Your task to perform on an android device: turn off translation in the chrome app Image 0: 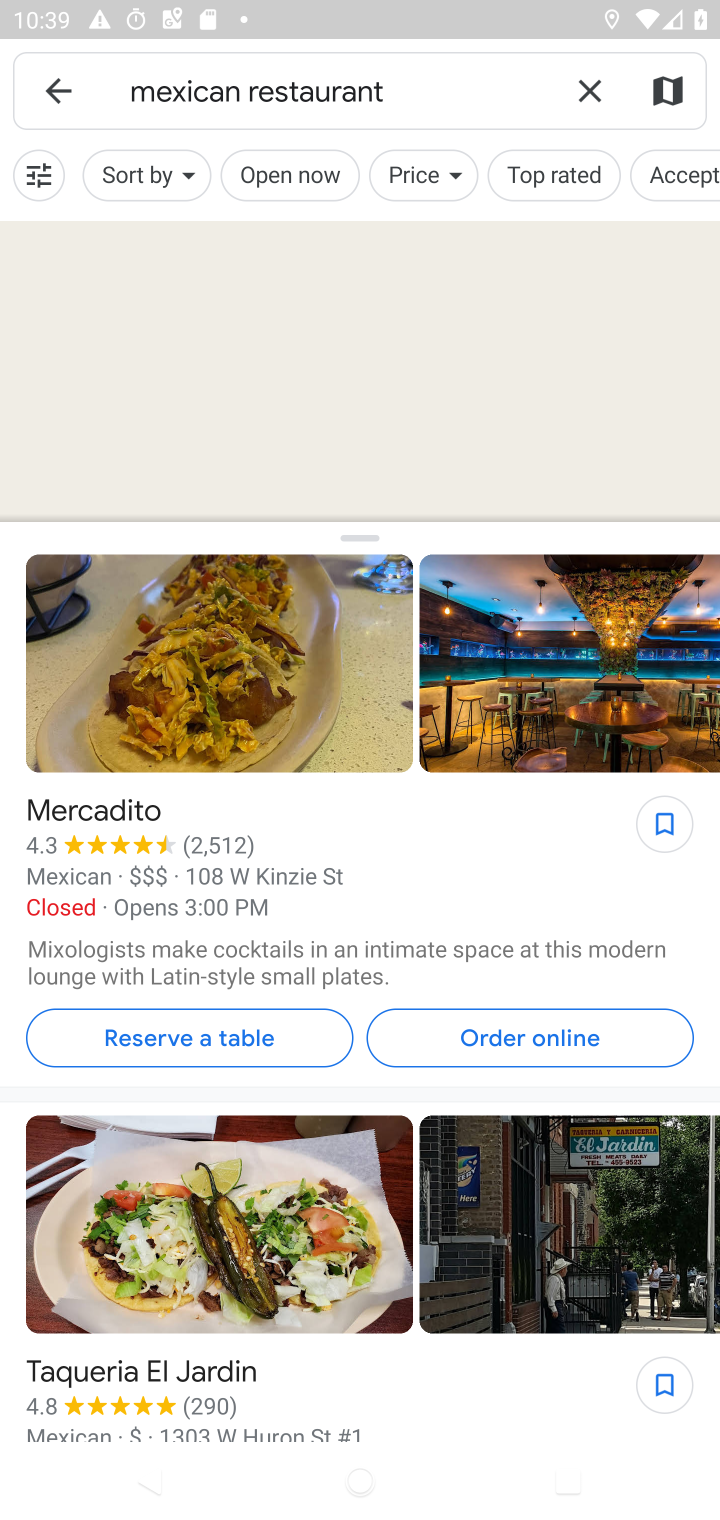
Step 0: press home button
Your task to perform on an android device: turn off translation in the chrome app Image 1: 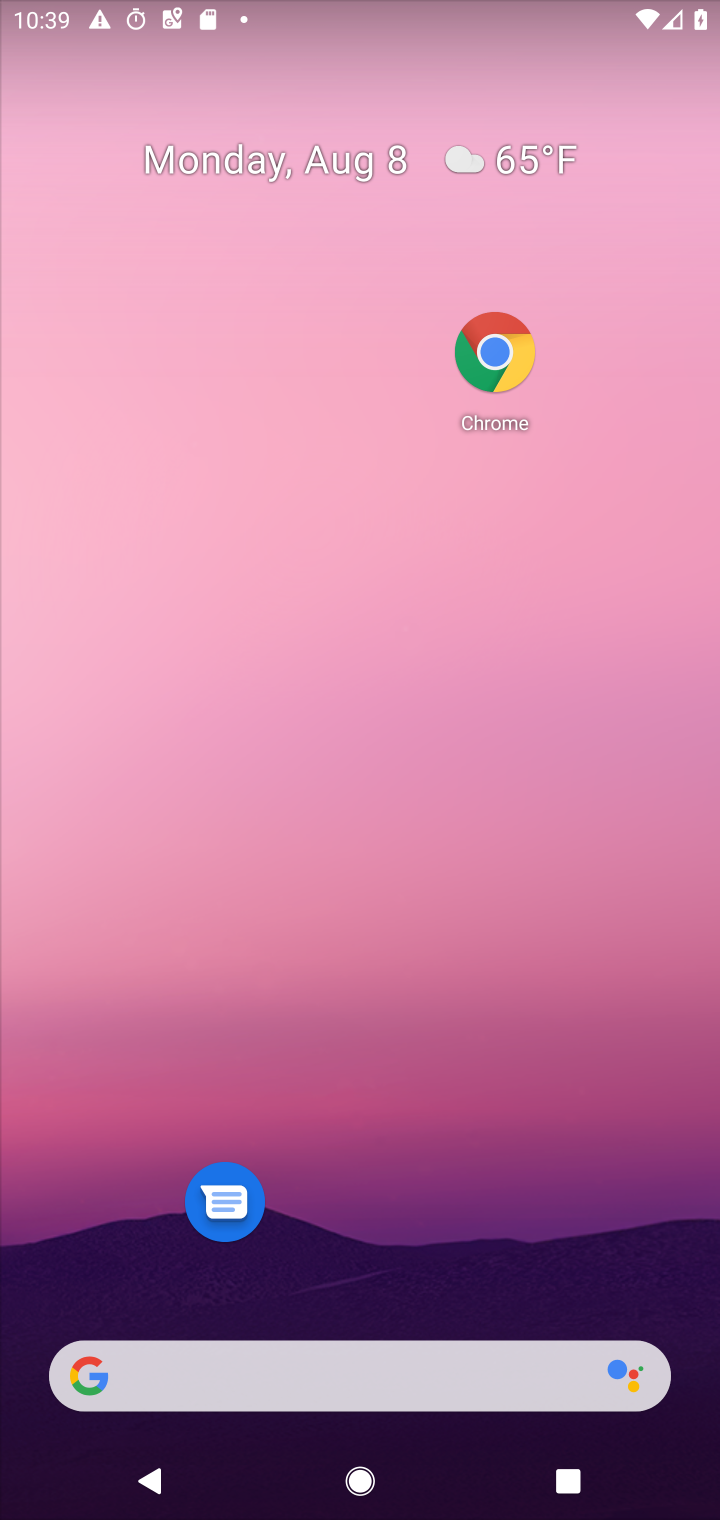
Step 1: drag from (234, 1329) to (280, 87)
Your task to perform on an android device: turn off translation in the chrome app Image 2: 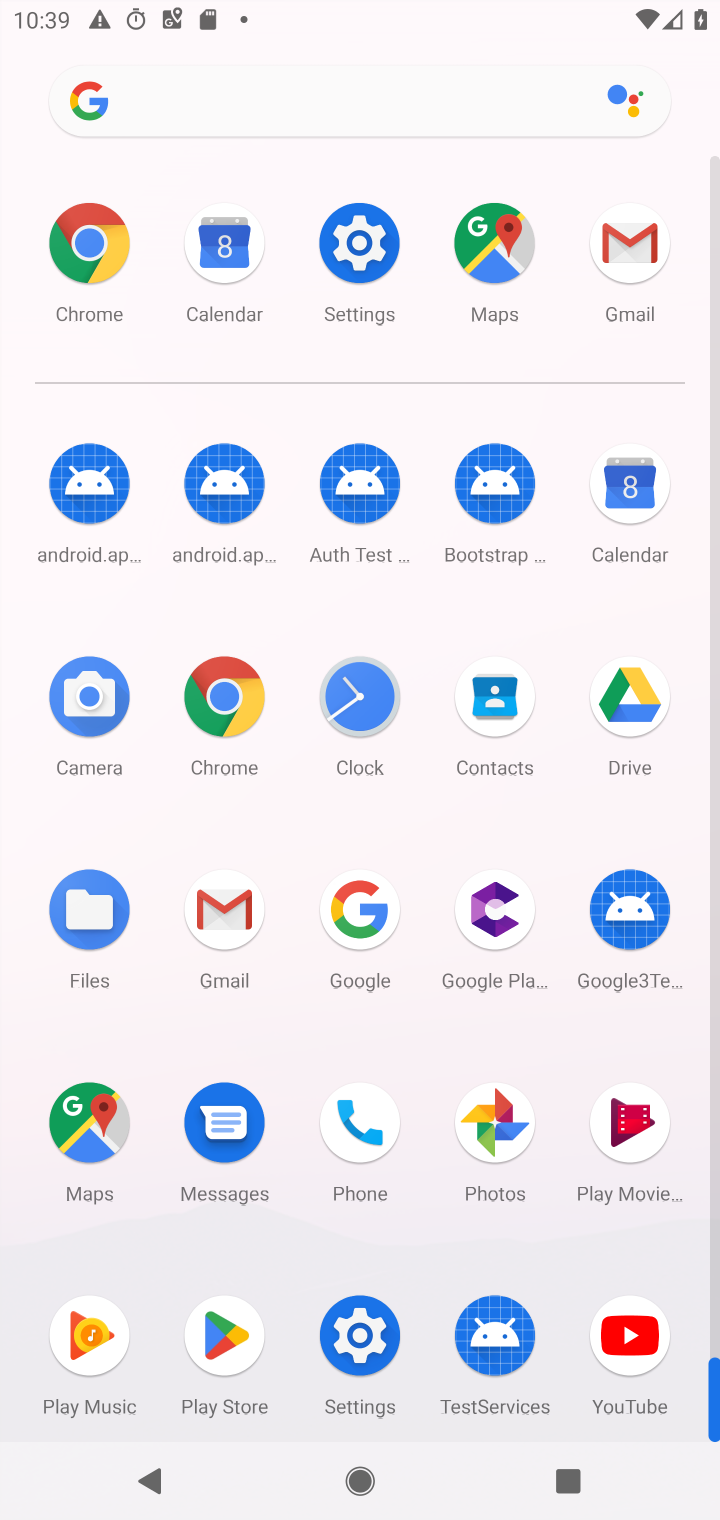
Step 2: click (87, 273)
Your task to perform on an android device: turn off translation in the chrome app Image 3: 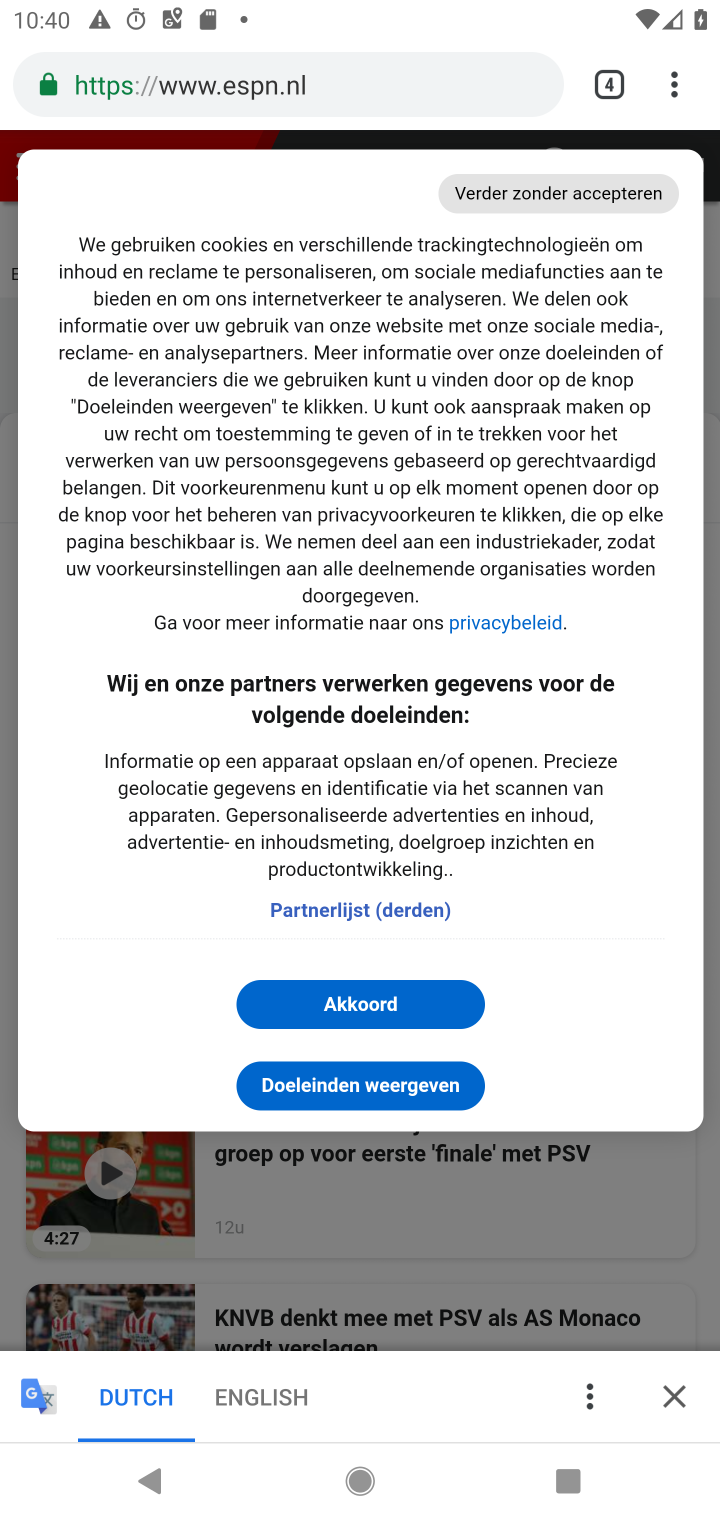
Step 3: click (677, 82)
Your task to perform on an android device: turn off translation in the chrome app Image 4: 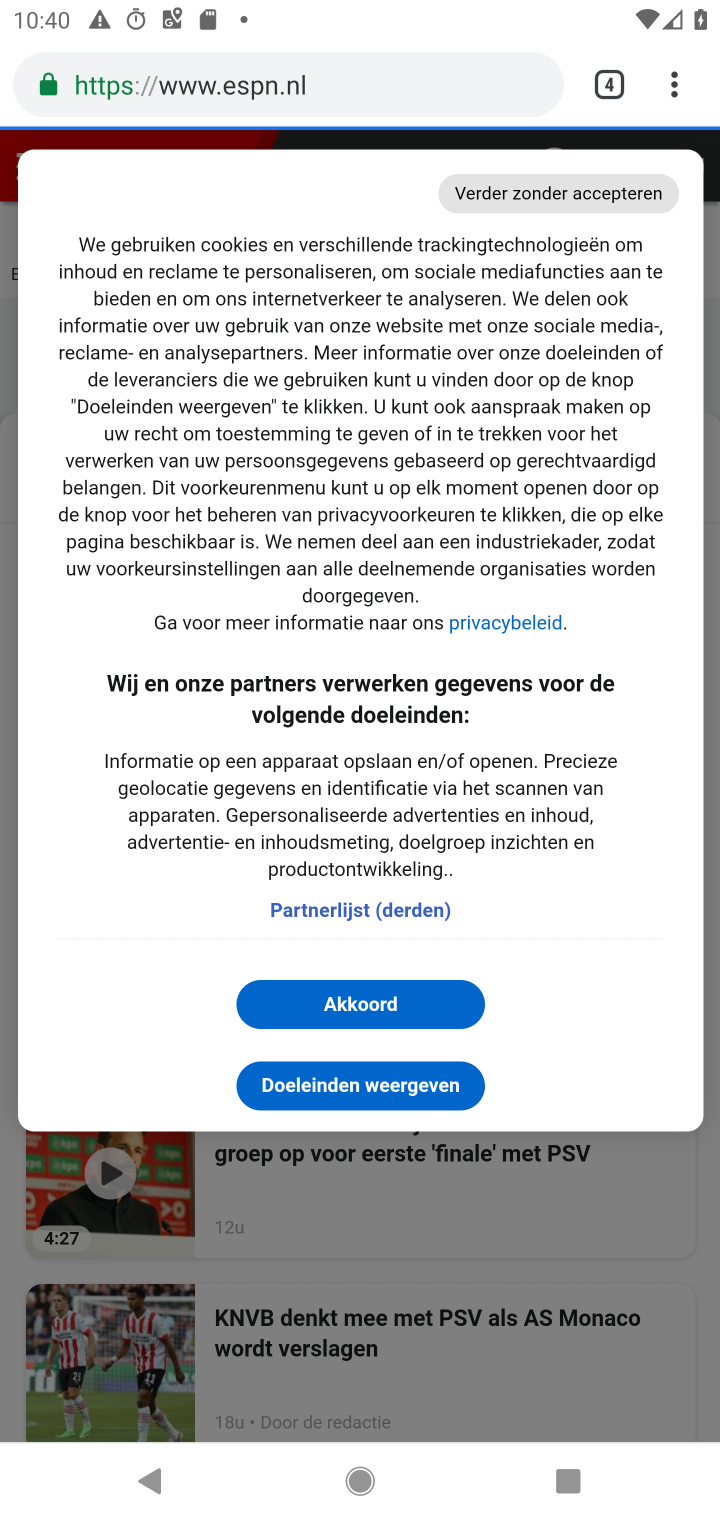
Step 4: click (677, 82)
Your task to perform on an android device: turn off translation in the chrome app Image 5: 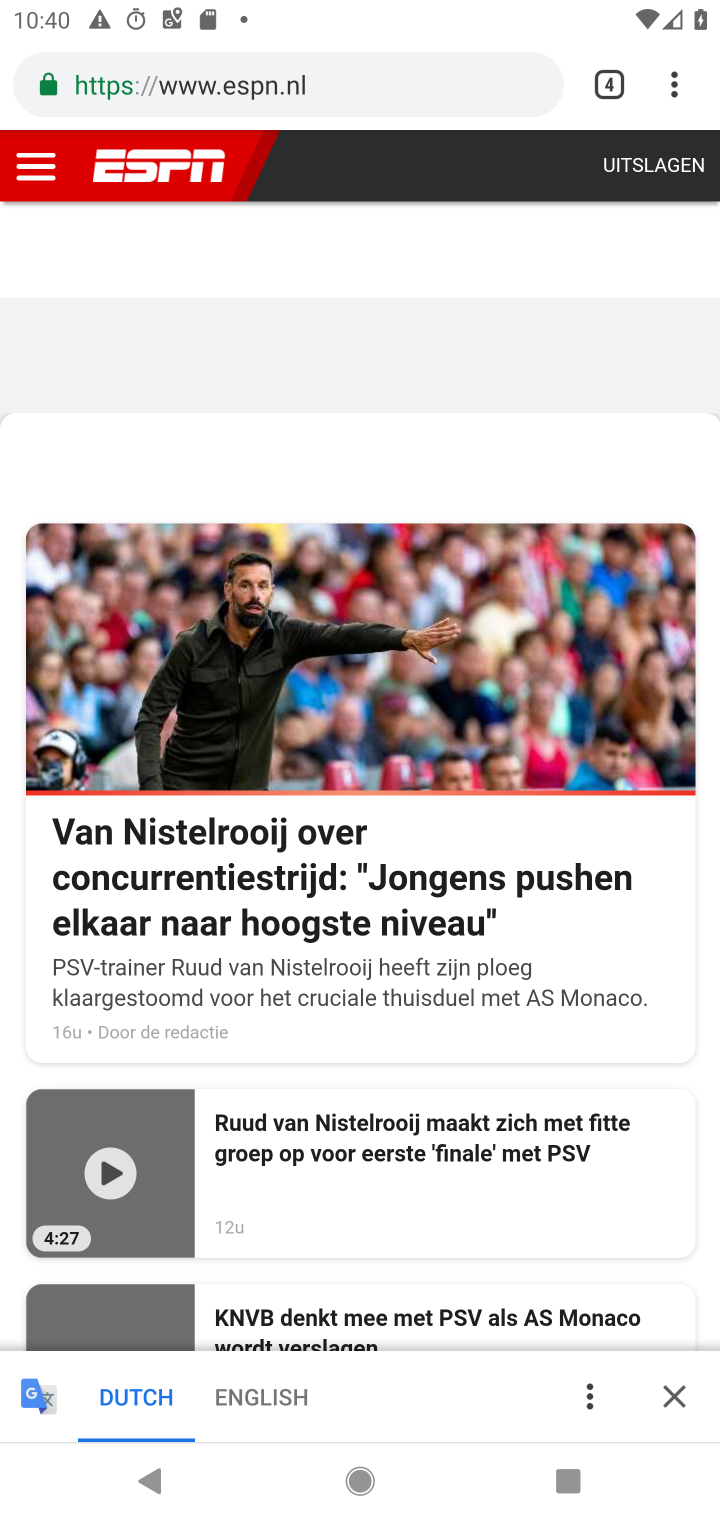
Step 5: click (677, 82)
Your task to perform on an android device: turn off translation in the chrome app Image 6: 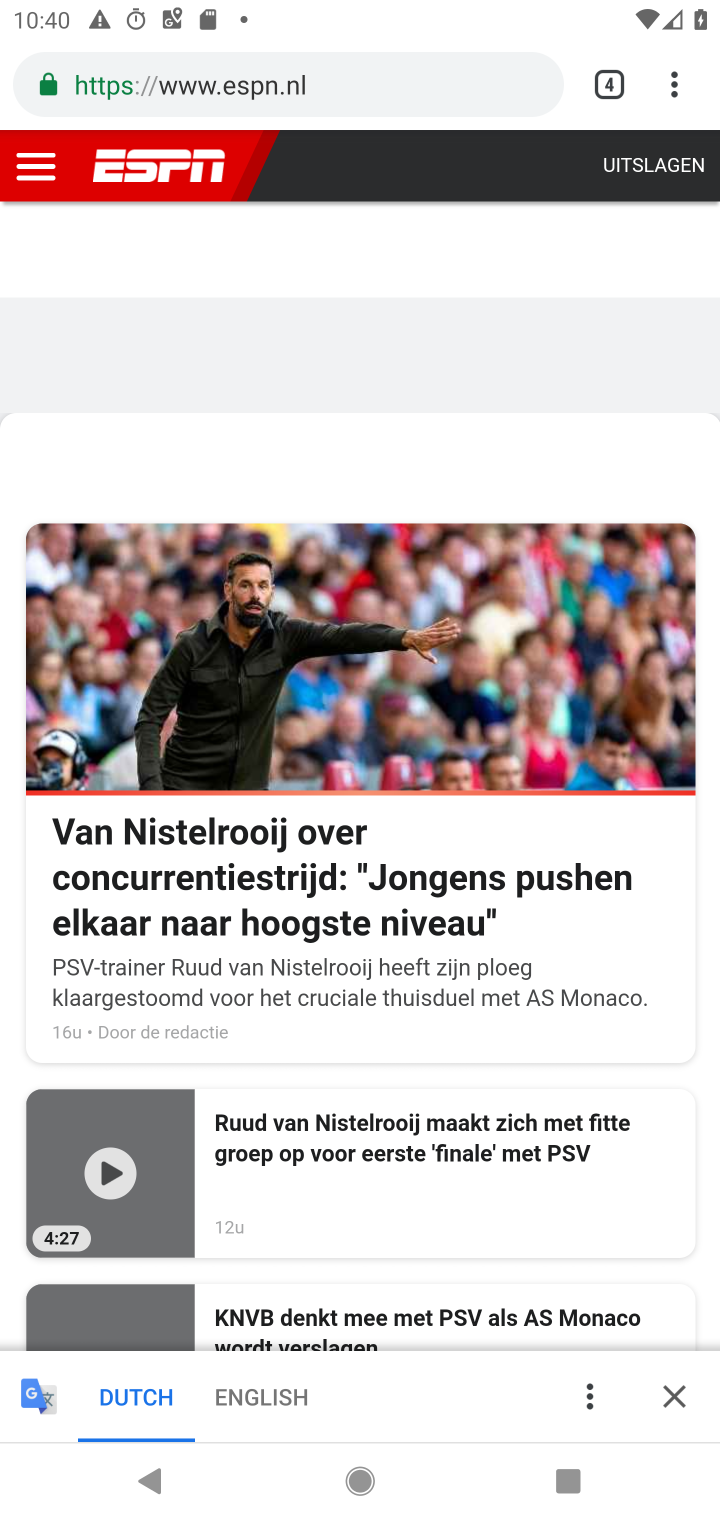
Step 6: click (677, 82)
Your task to perform on an android device: turn off translation in the chrome app Image 7: 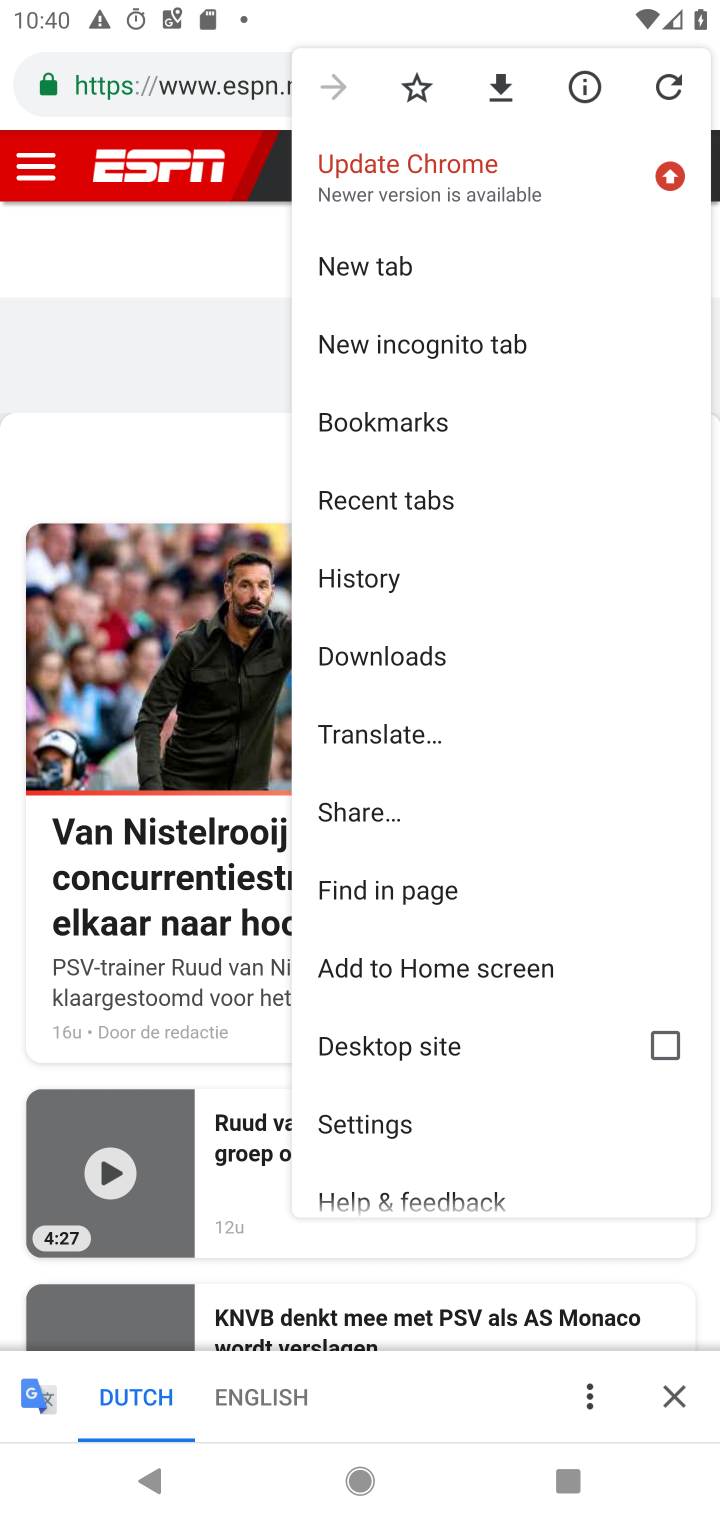
Step 7: click (403, 738)
Your task to perform on an android device: turn off translation in the chrome app Image 8: 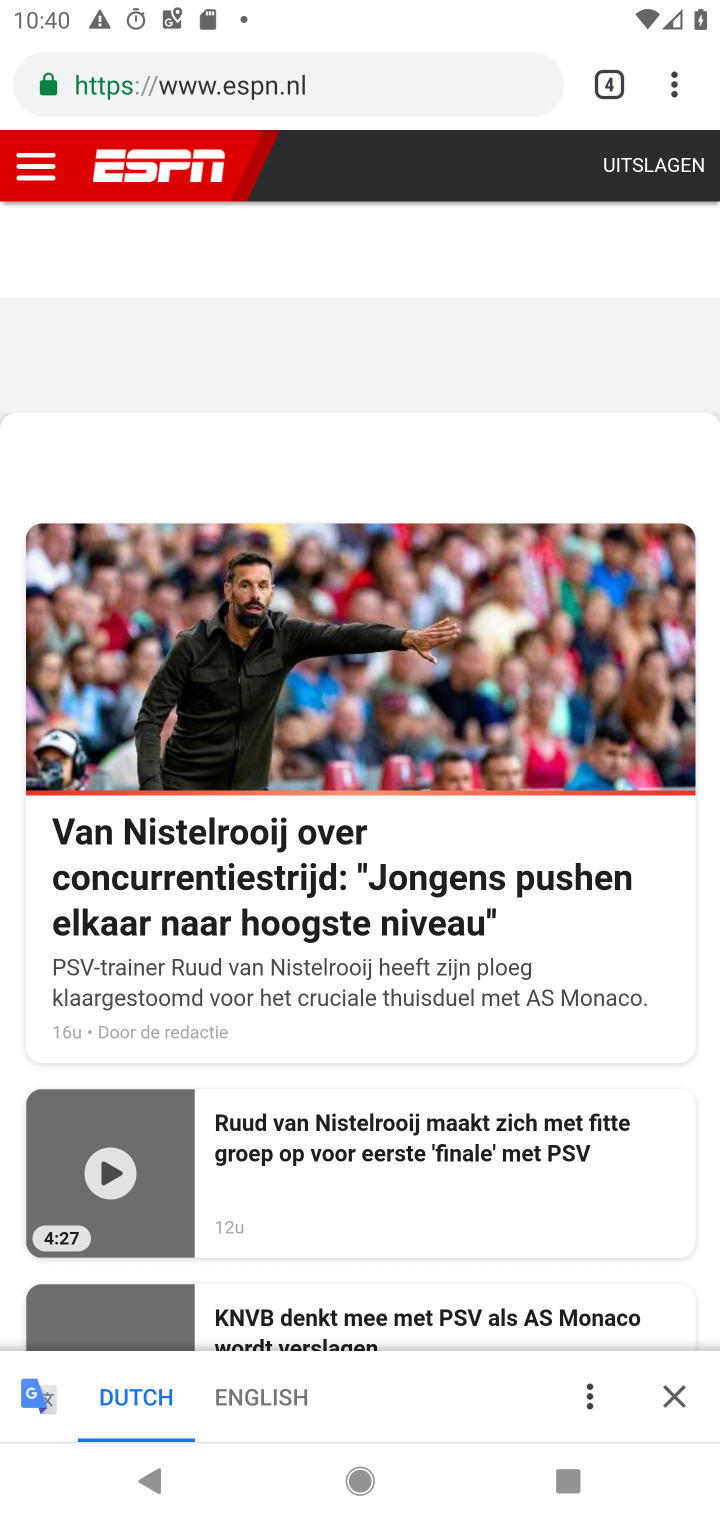
Step 8: click (597, 1396)
Your task to perform on an android device: turn off translation in the chrome app Image 9: 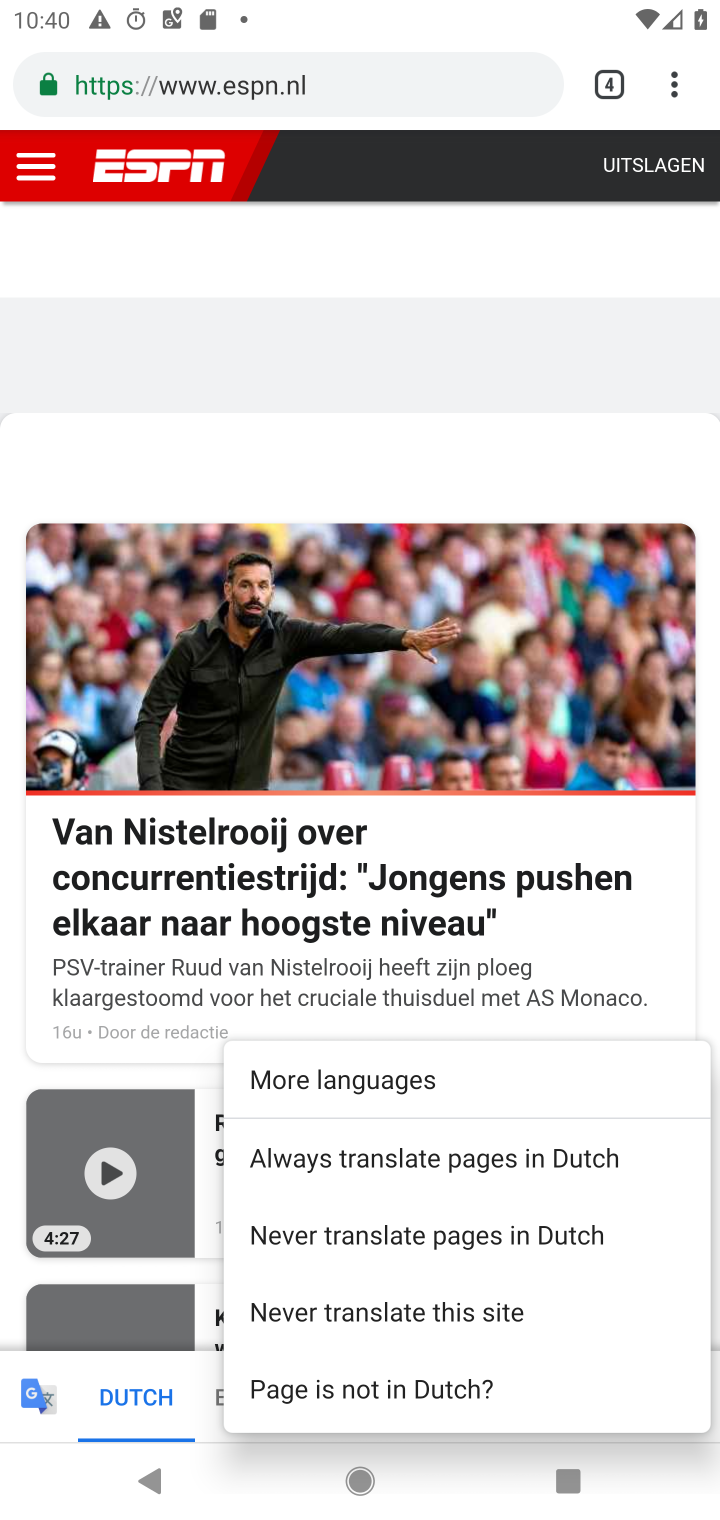
Step 9: click (430, 1314)
Your task to perform on an android device: turn off translation in the chrome app Image 10: 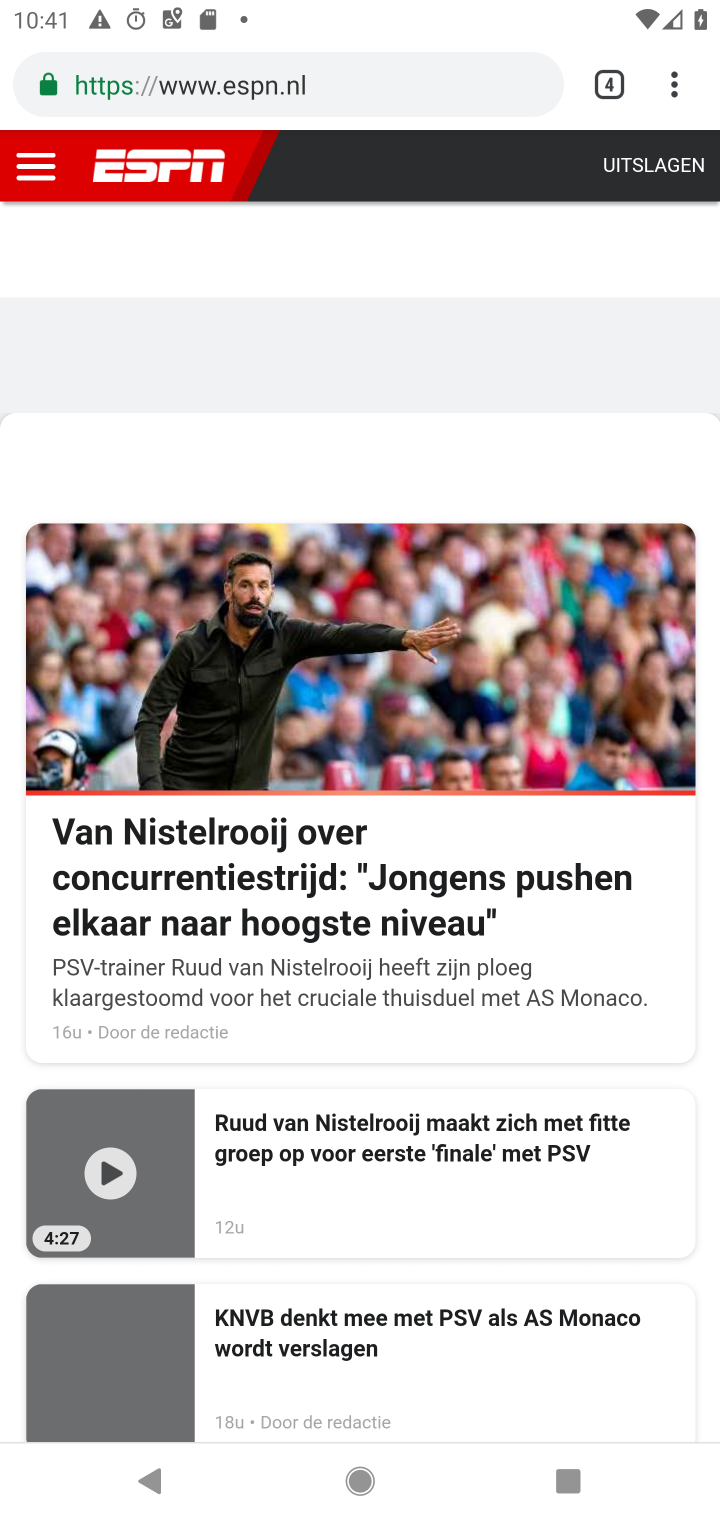
Step 10: task complete